Your task to perform on an android device: toggle wifi Image 0: 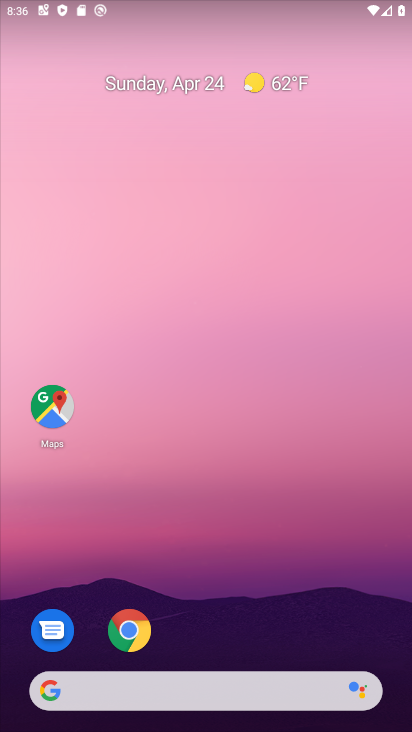
Step 0: drag from (245, 591) to (330, 21)
Your task to perform on an android device: toggle wifi Image 1: 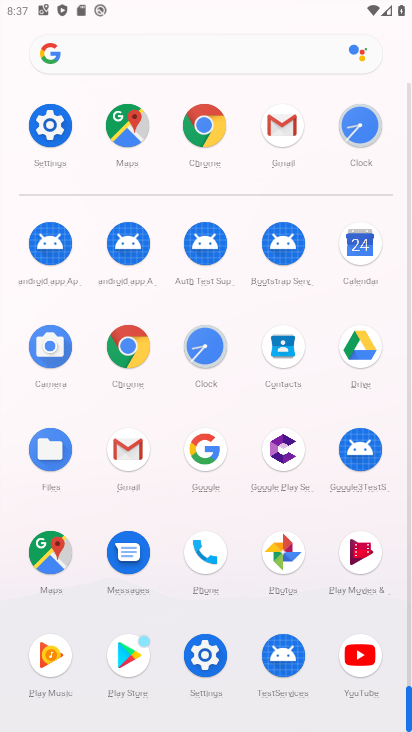
Step 1: click (201, 653)
Your task to perform on an android device: toggle wifi Image 2: 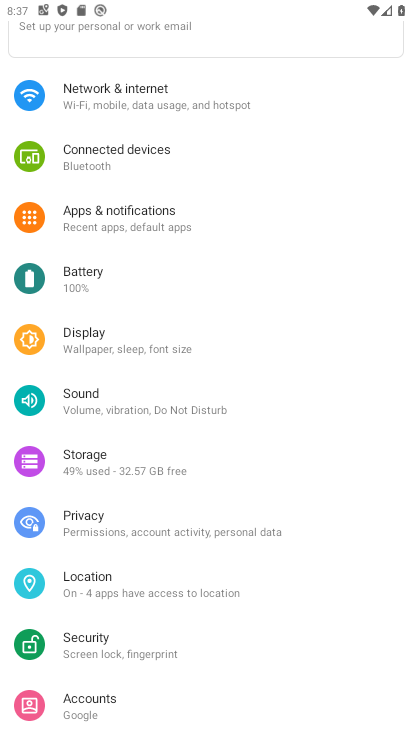
Step 2: click (199, 105)
Your task to perform on an android device: toggle wifi Image 3: 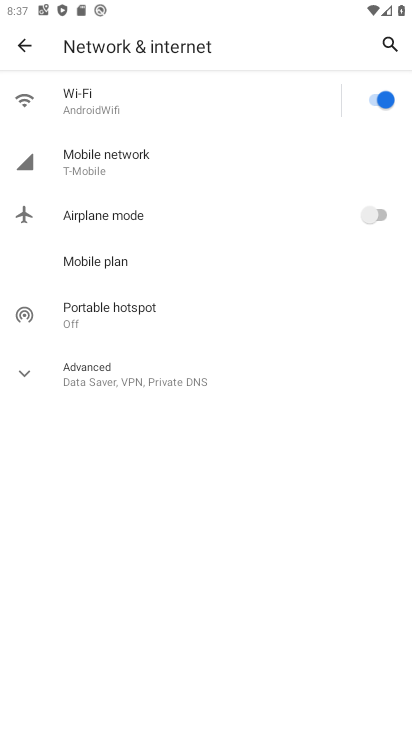
Step 3: click (368, 93)
Your task to perform on an android device: toggle wifi Image 4: 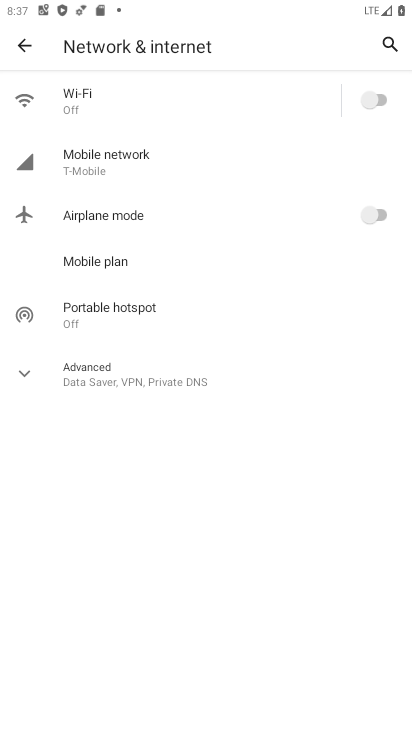
Step 4: task complete